Your task to perform on an android device: Go to Maps Image 0: 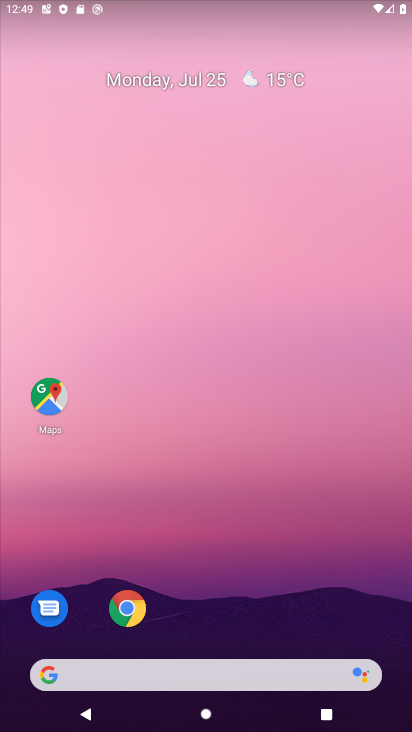
Step 0: drag from (232, 409) to (239, 74)
Your task to perform on an android device: Go to Maps Image 1: 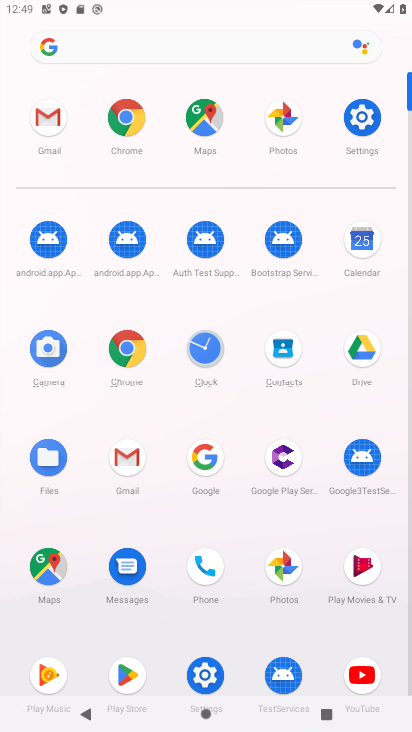
Step 1: click (43, 573)
Your task to perform on an android device: Go to Maps Image 2: 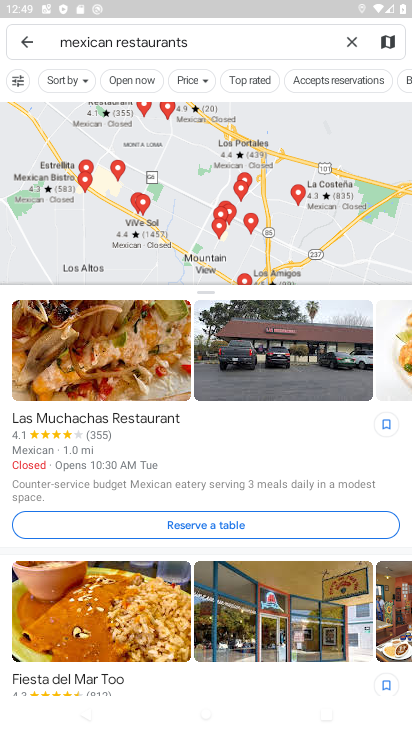
Step 2: task complete